Your task to perform on an android device: Check the settings for the Google Chrome app Image 0: 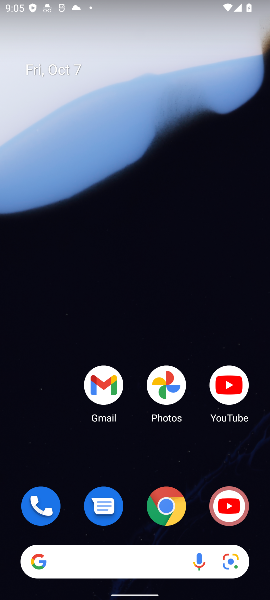
Step 0: click (164, 505)
Your task to perform on an android device: Check the settings for the Google Chrome app Image 1: 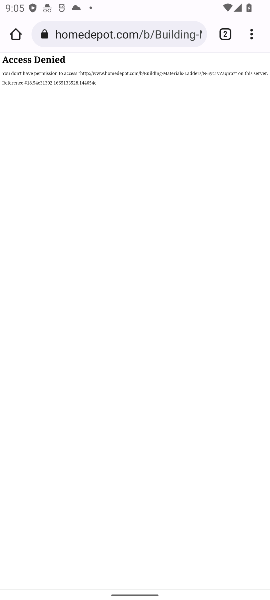
Step 1: task complete